Your task to perform on an android device: Open the phone app and click the voicemail tab. Image 0: 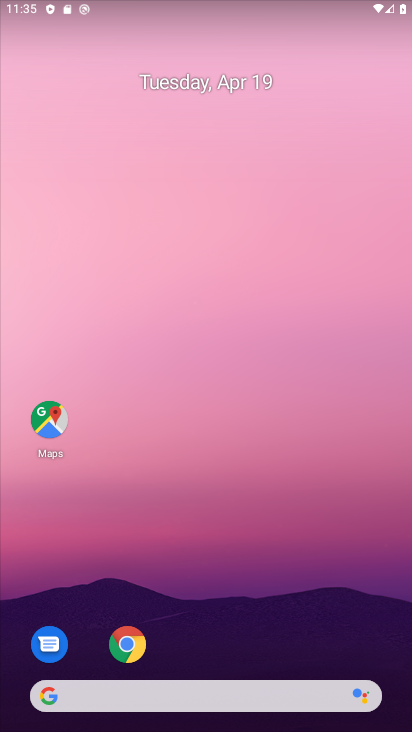
Step 0: drag from (209, 711) to (213, 77)
Your task to perform on an android device: Open the phone app and click the voicemail tab. Image 1: 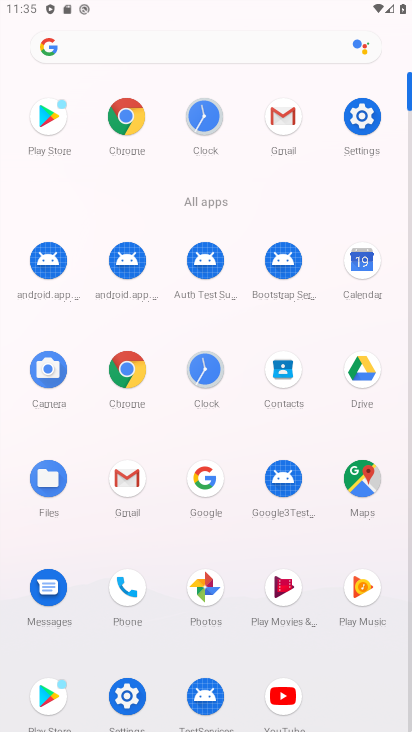
Step 1: click (124, 587)
Your task to perform on an android device: Open the phone app and click the voicemail tab. Image 2: 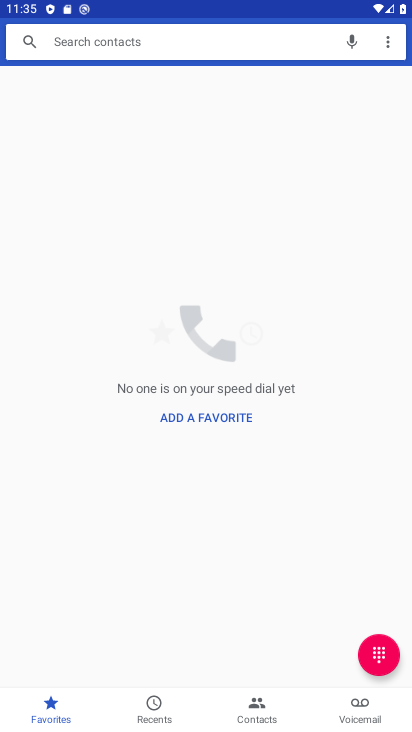
Step 2: click (363, 714)
Your task to perform on an android device: Open the phone app and click the voicemail tab. Image 3: 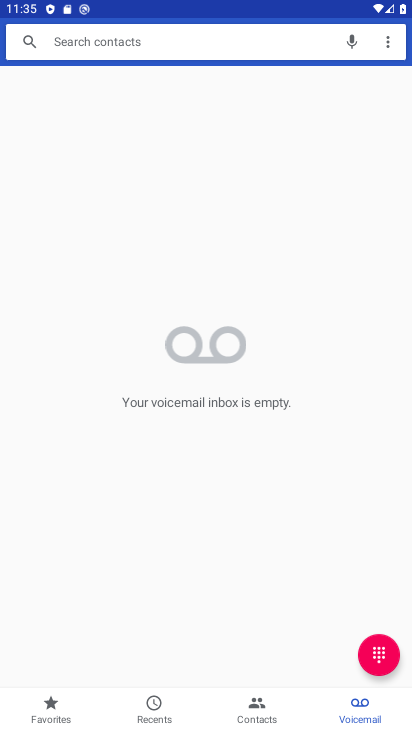
Step 3: task complete